Your task to perform on an android device: turn on the 24-hour format for clock Image 0: 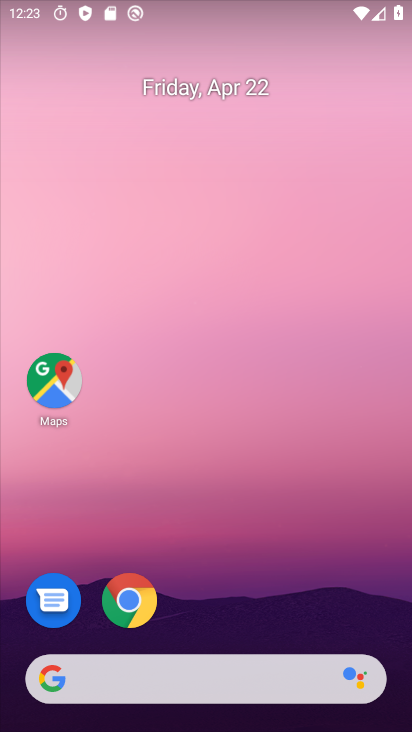
Step 0: drag from (222, 419) to (233, 70)
Your task to perform on an android device: turn on the 24-hour format for clock Image 1: 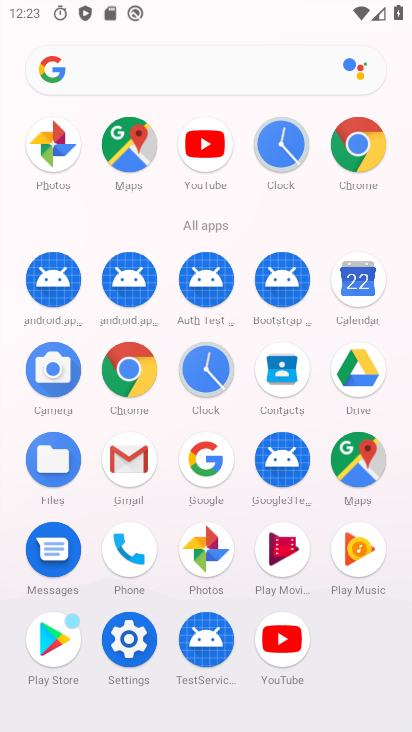
Step 1: click (281, 140)
Your task to perform on an android device: turn on the 24-hour format for clock Image 2: 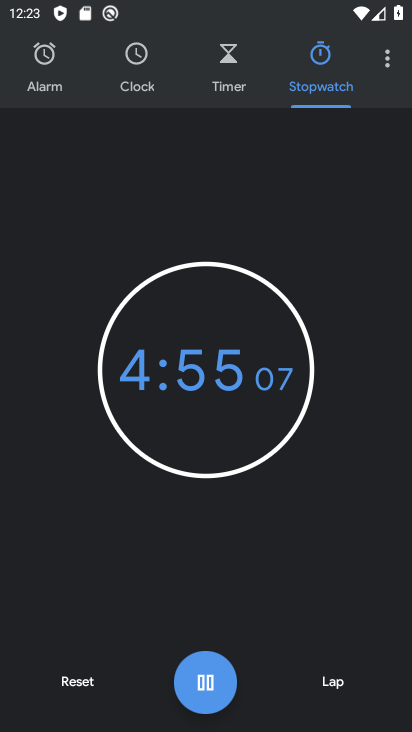
Step 2: click (388, 61)
Your task to perform on an android device: turn on the 24-hour format for clock Image 3: 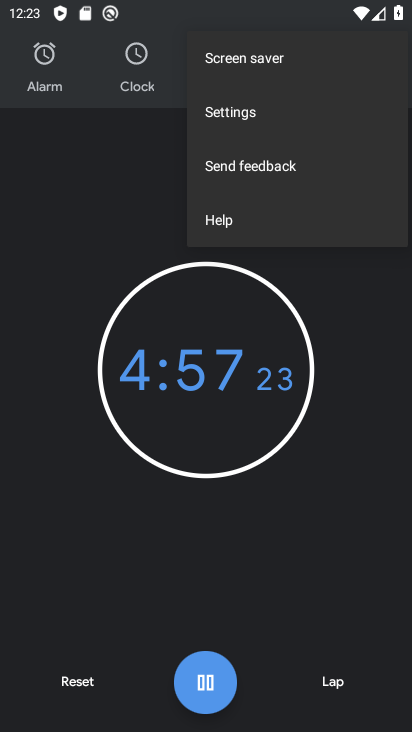
Step 3: click (247, 112)
Your task to perform on an android device: turn on the 24-hour format for clock Image 4: 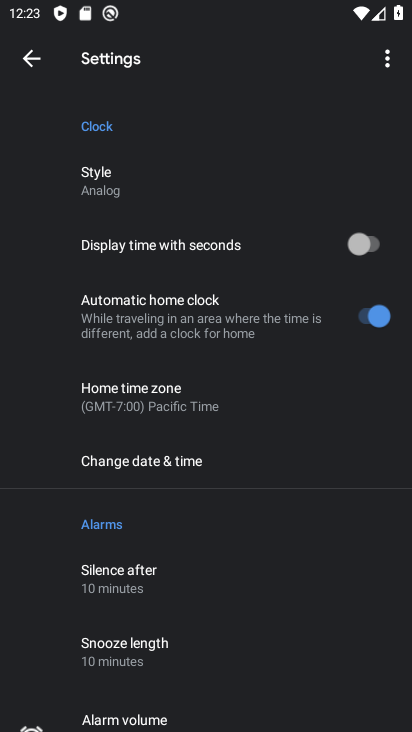
Step 4: drag from (196, 643) to (222, 346)
Your task to perform on an android device: turn on the 24-hour format for clock Image 5: 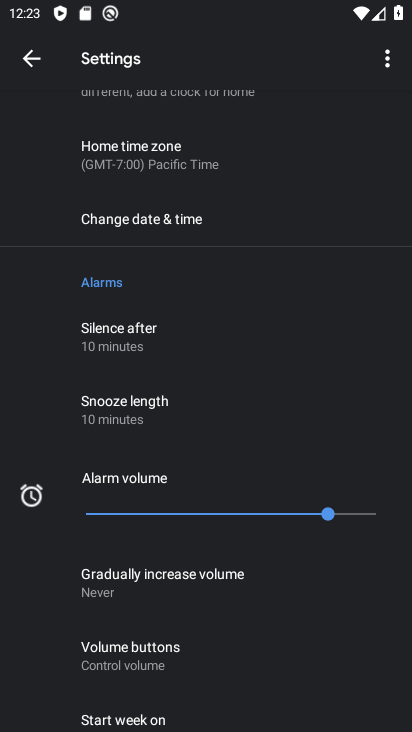
Step 5: click (188, 225)
Your task to perform on an android device: turn on the 24-hour format for clock Image 6: 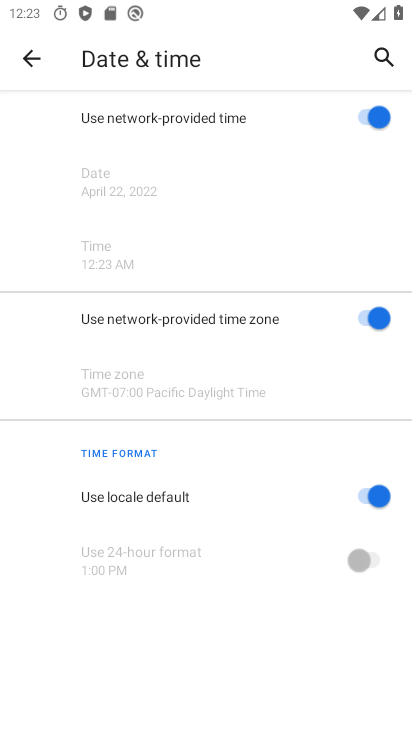
Step 6: click (370, 494)
Your task to perform on an android device: turn on the 24-hour format for clock Image 7: 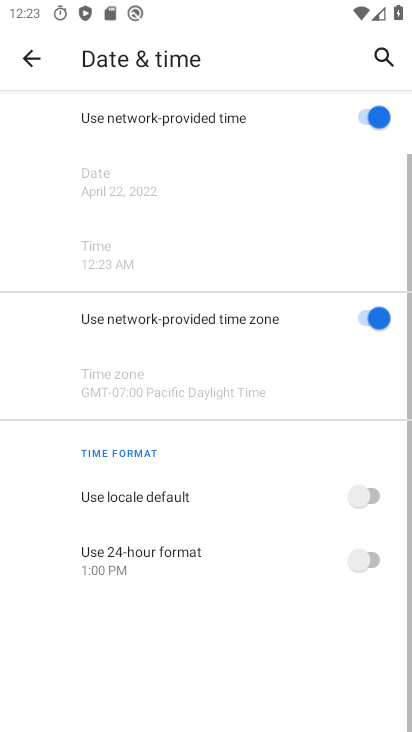
Step 7: click (373, 569)
Your task to perform on an android device: turn on the 24-hour format for clock Image 8: 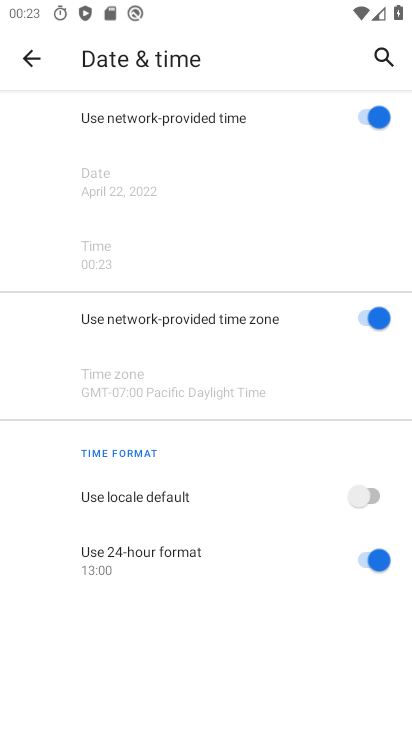
Step 8: task complete